Your task to perform on an android device: Is it going to rain tomorrow? Image 0: 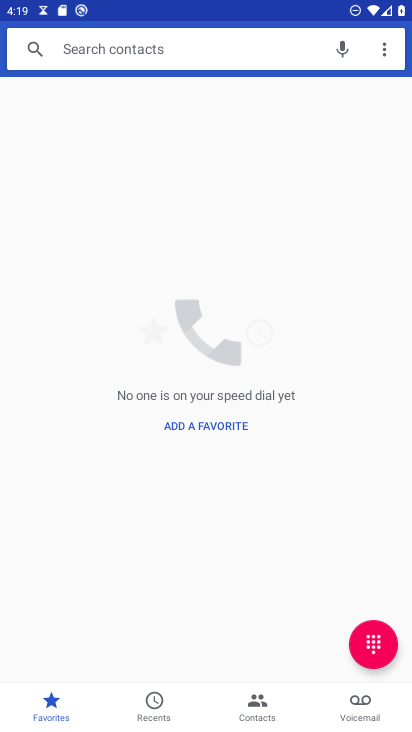
Step 0: press home button
Your task to perform on an android device: Is it going to rain tomorrow? Image 1: 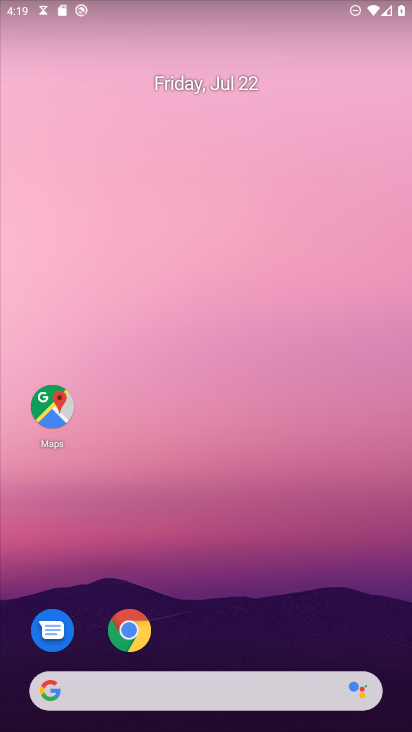
Step 1: click (224, 697)
Your task to perform on an android device: Is it going to rain tomorrow? Image 2: 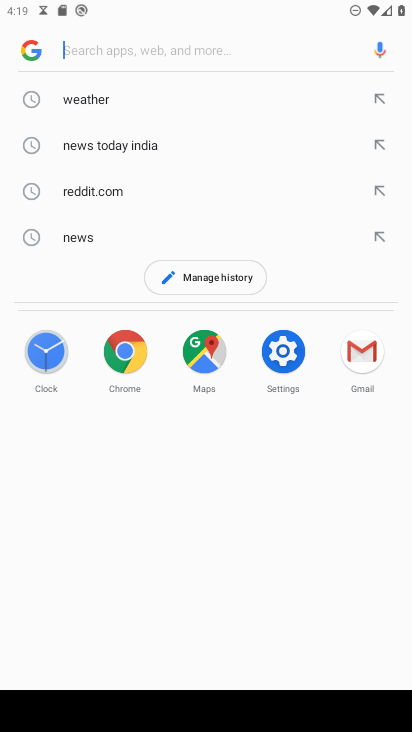
Step 2: click (68, 96)
Your task to perform on an android device: Is it going to rain tomorrow? Image 3: 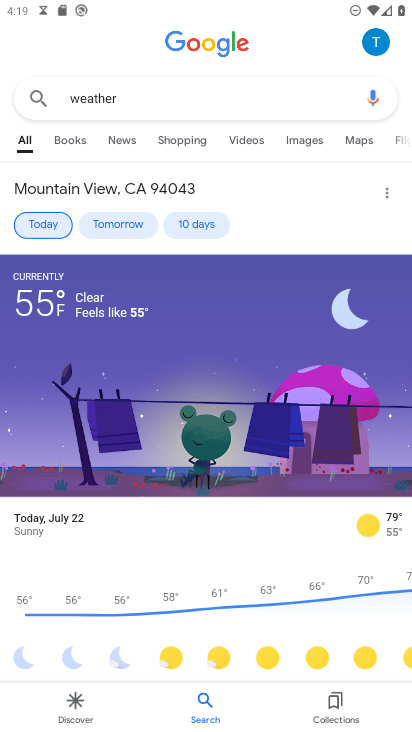
Step 3: click (148, 222)
Your task to perform on an android device: Is it going to rain tomorrow? Image 4: 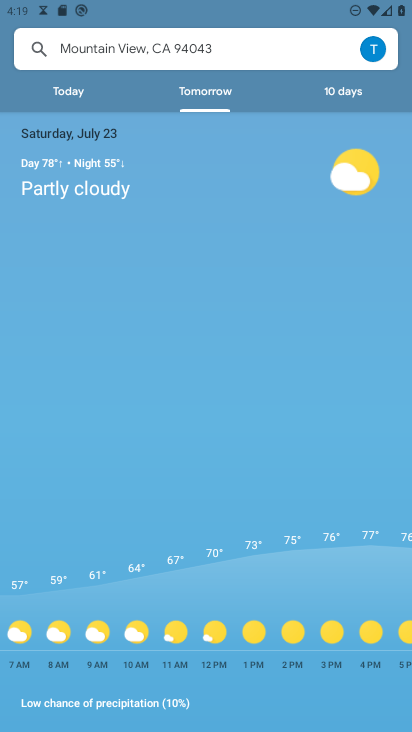
Step 4: task complete